Your task to perform on an android device: turn off location Image 0: 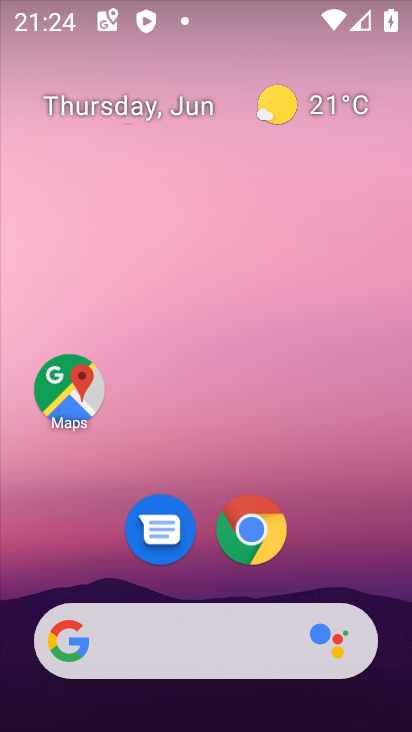
Step 0: drag from (324, 528) to (220, 92)
Your task to perform on an android device: turn off location Image 1: 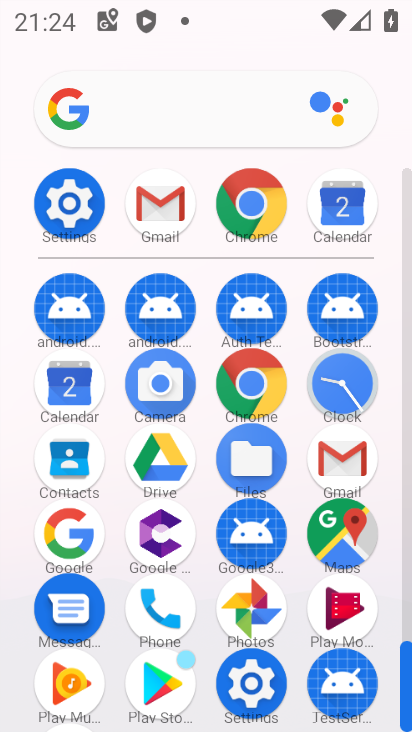
Step 1: click (67, 208)
Your task to perform on an android device: turn off location Image 2: 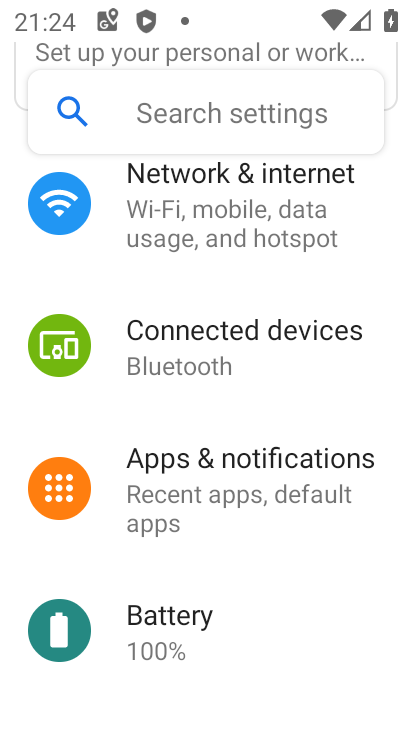
Step 2: drag from (243, 628) to (202, 231)
Your task to perform on an android device: turn off location Image 3: 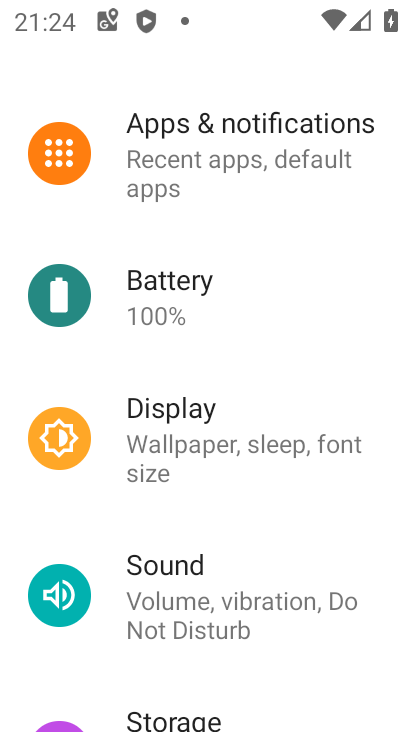
Step 3: drag from (245, 548) to (189, 256)
Your task to perform on an android device: turn off location Image 4: 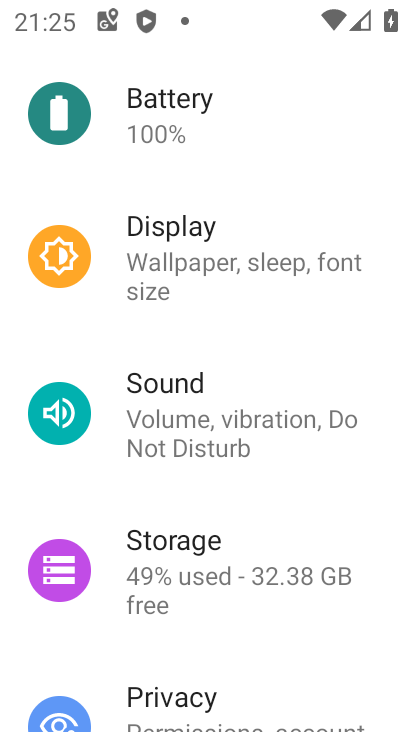
Step 4: drag from (252, 603) to (220, 326)
Your task to perform on an android device: turn off location Image 5: 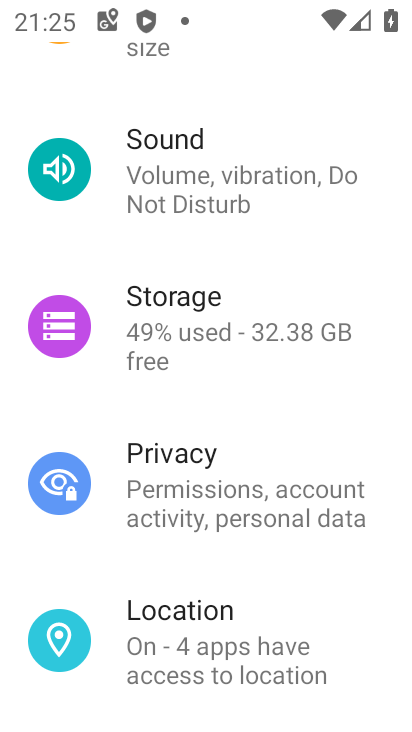
Step 5: click (205, 613)
Your task to perform on an android device: turn off location Image 6: 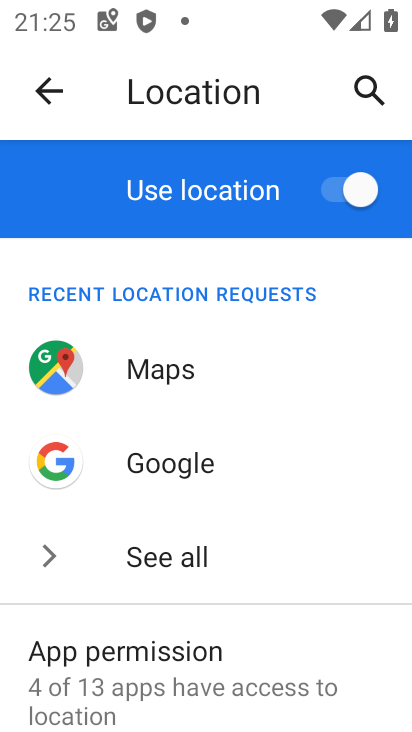
Step 6: click (205, 613)
Your task to perform on an android device: turn off location Image 7: 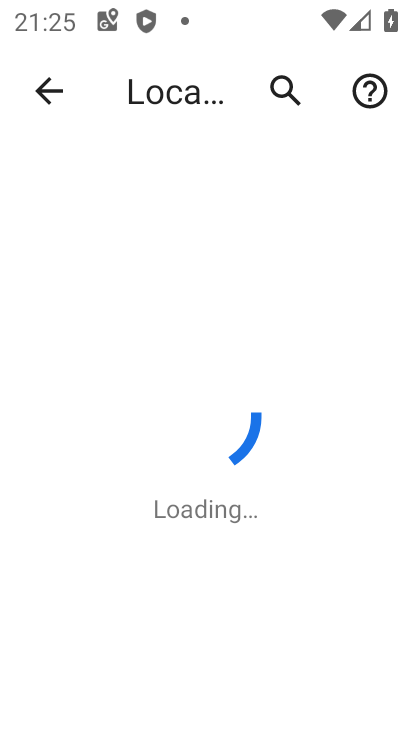
Step 7: click (348, 179)
Your task to perform on an android device: turn off location Image 8: 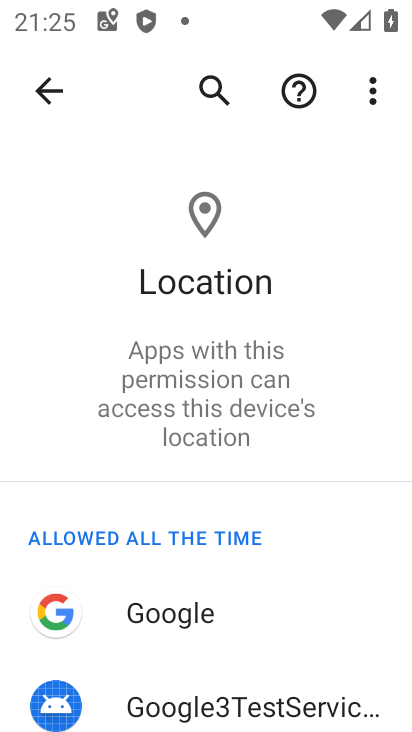
Step 8: task complete